Your task to perform on an android device: toggle javascript in the chrome app Image 0: 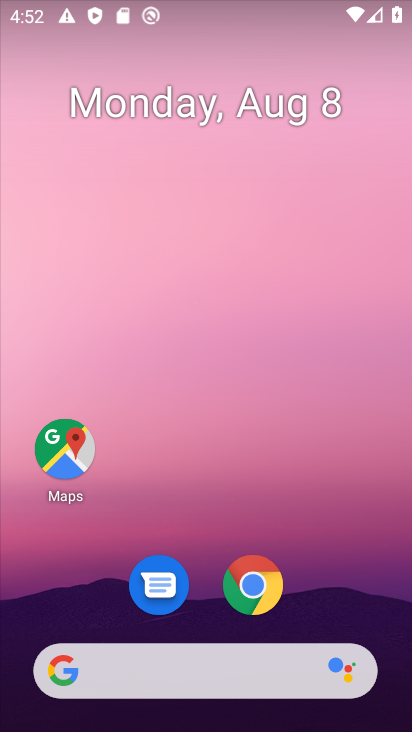
Step 0: click (255, 584)
Your task to perform on an android device: toggle javascript in the chrome app Image 1: 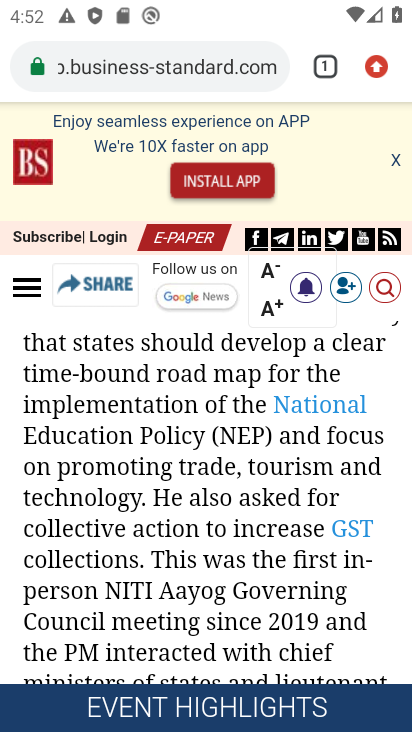
Step 1: click (373, 64)
Your task to perform on an android device: toggle javascript in the chrome app Image 2: 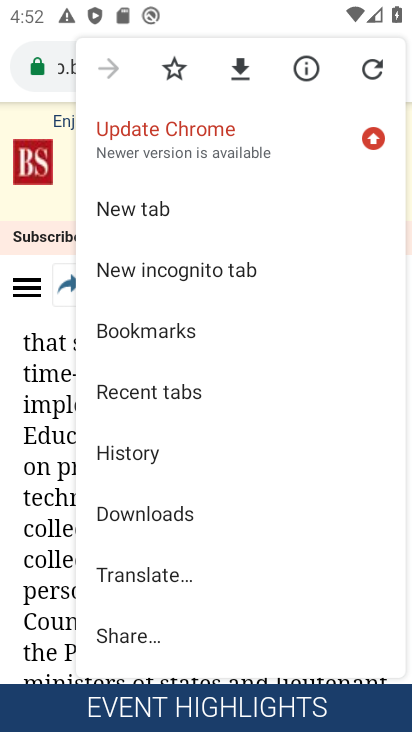
Step 2: drag from (289, 487) to (257, 193)
Your task to perform on an android device: toggle javascript in the chrome app Image 3: 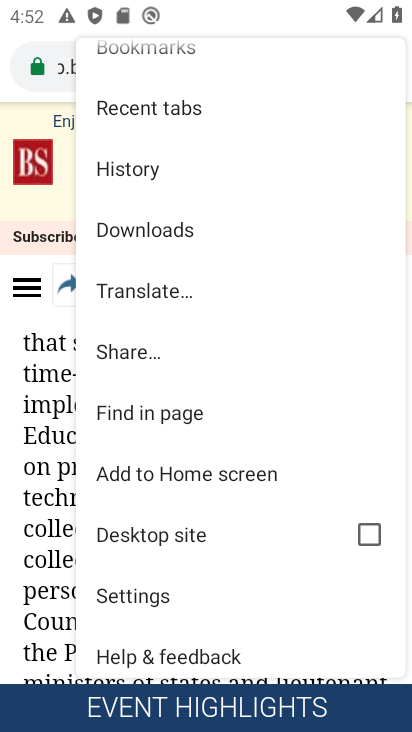
Step 3: click (161, 587)
Your task to perform on an android device: toggle javascript in the chrome app Image 4: 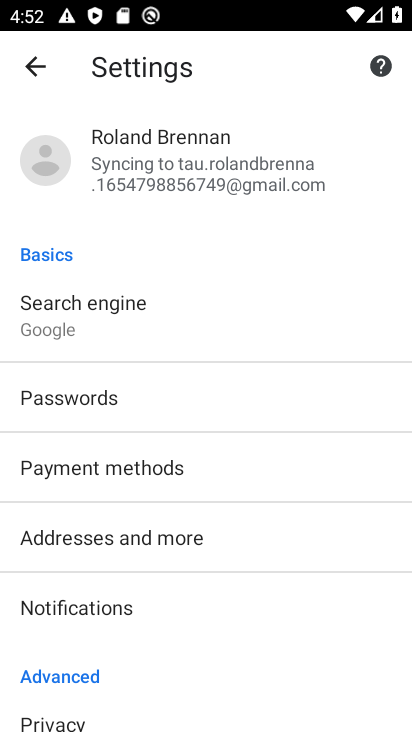
Step 4: drag from (226, 581) to (230, 117)
Your task to perform on an android device: toggle javascript in the chrome app Image 5: 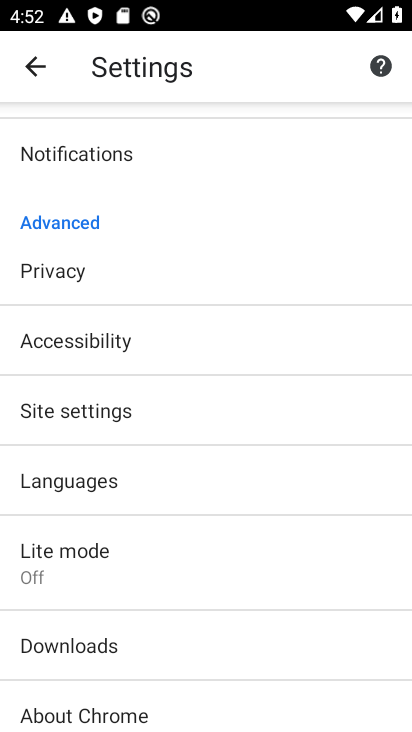
Step 5: click (111, 413)
Your task to perform on an android device: toggle javascript in the chrome app Image 6: 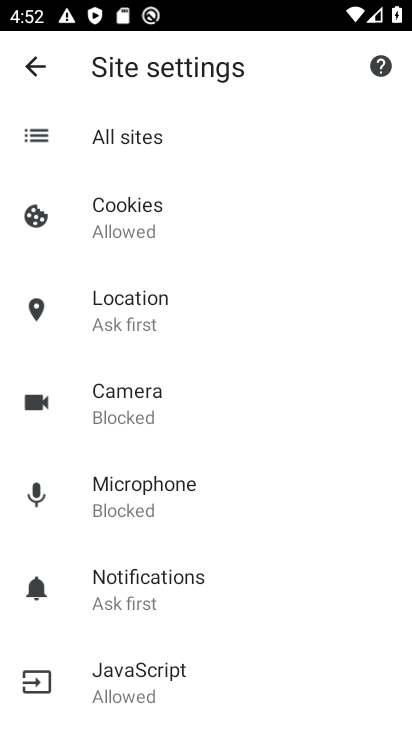
Step 6: click (170, 682)
Your task to perform on an android device: toggle javascript in the chrome app Image 7: 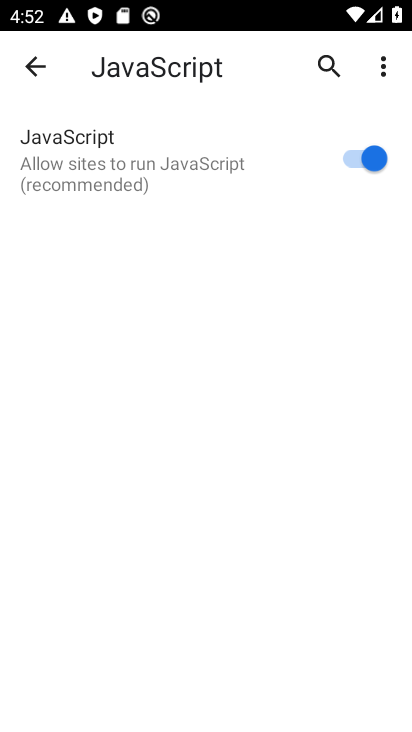
Step 7: click (363, 143)
Your task to perform on an android device: toggle javascript in the chrome app Image 8: 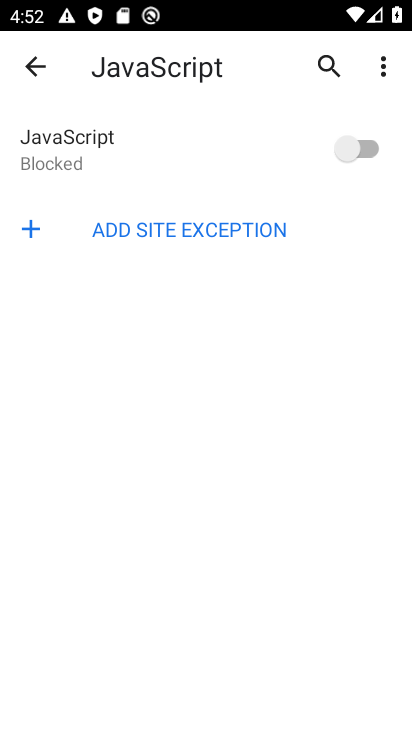
Step 8: task complete